Your task to perform on an android device: Open the calendar and show me this week's events? Image 0: 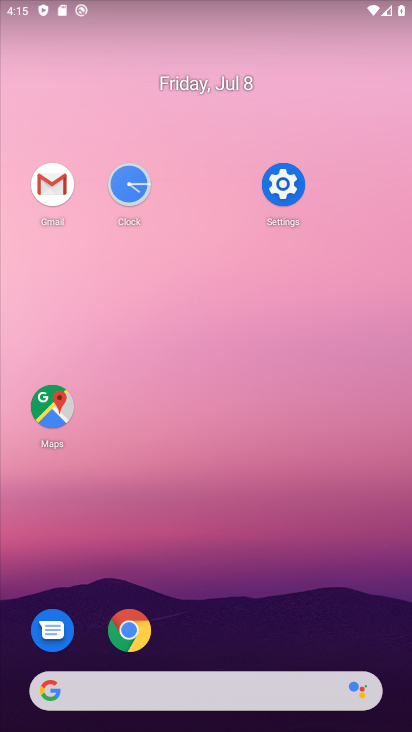
Step 0: drag from (230, 557) to (259, 169)
Your task to perform on an android device: Open the calendar and show me this week's events? Image 1: 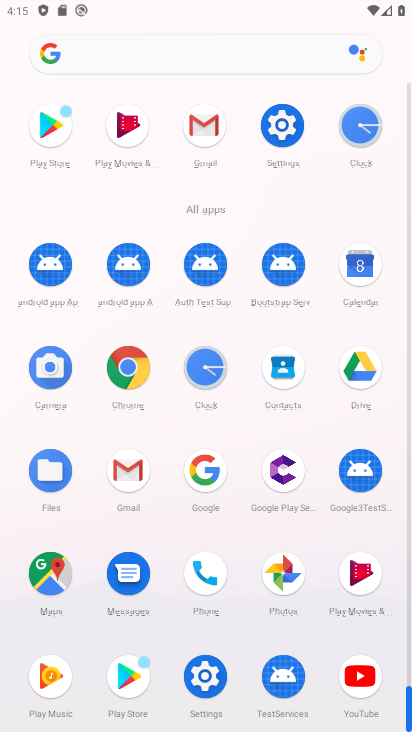
Step 1: click (357, 279)
Your task to perform on an android device: Open the calendar and show me this week's events? Image 2: 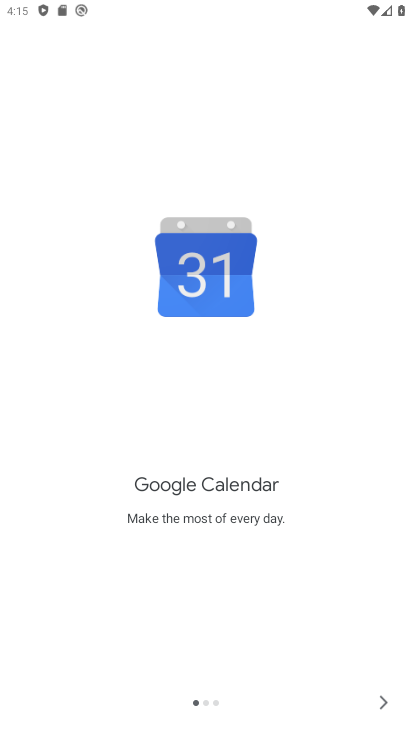
Step 2: click (381, 703)
Your task to perform on an android device: Open the calendar and show me this week's events? Image 3: 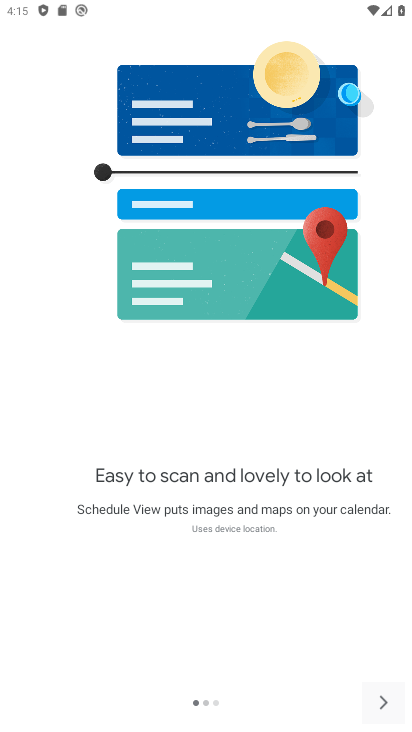
Step 3: click (381, 703)
Your task to perform on an android device: Open the calendar and show me this week's events? Image 4: 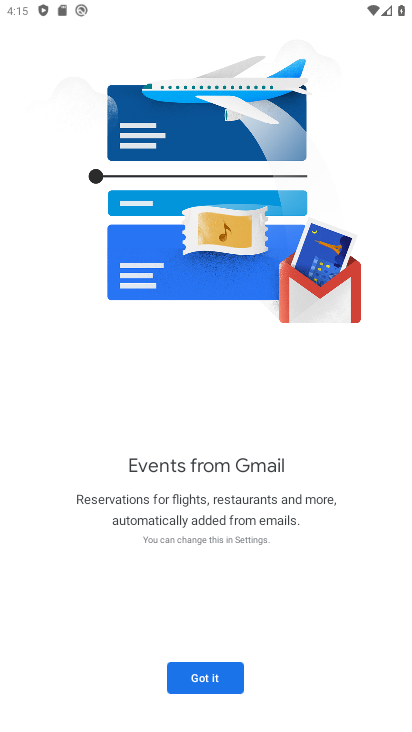
Step 4: click (229, 679)
Your task to perform on an android device: Open the calendar and show me this week's events? Image 5: 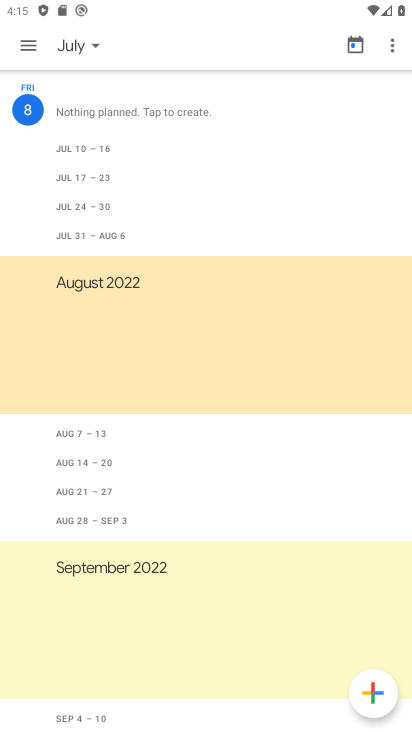
Step 5: click (28, 37)
Your task to perform on an android device: Open the calendar and show me this week's events? Image 6: 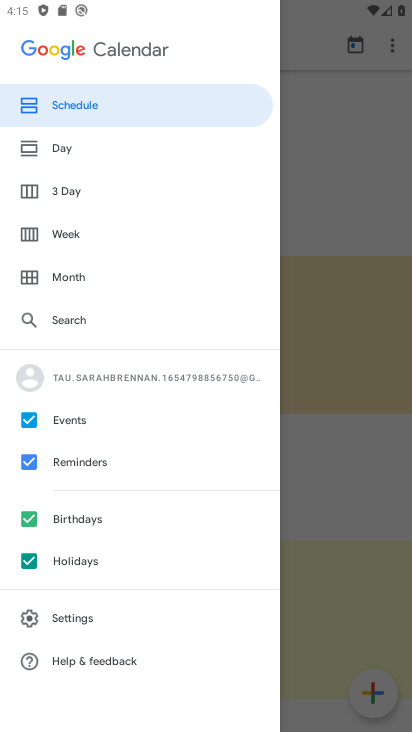
Step 6: click (86, 242)
Your task to perform on an android device: Open the calendar and show me this week's events? Image 7: 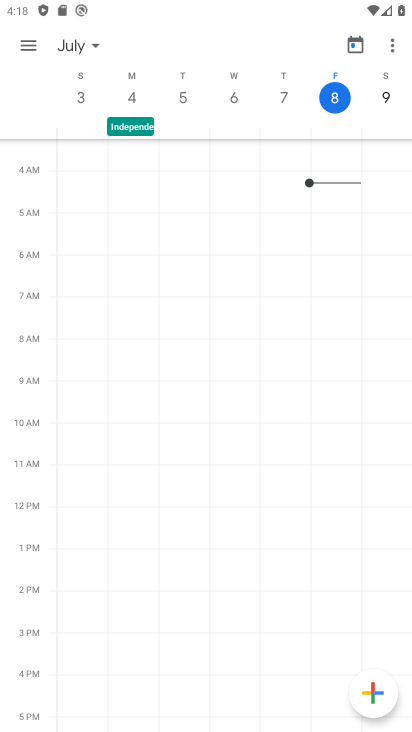
Step 7: task complete